Your task to perform on an android device: Go to accessibility settings Image 0: 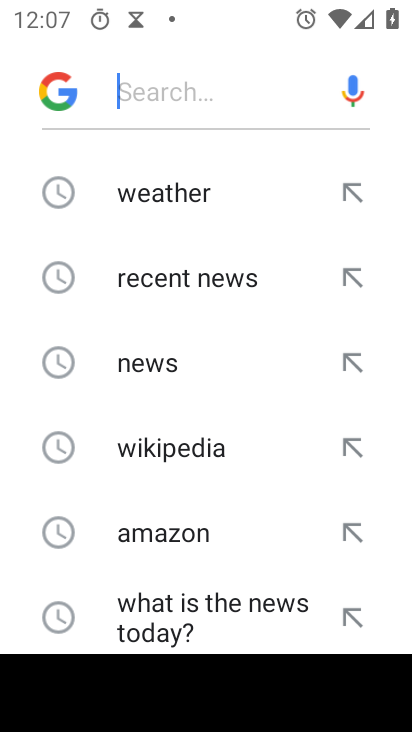
Step 0: press home button
Your task to perform on an android device: Go to accessibility settings Image 1: 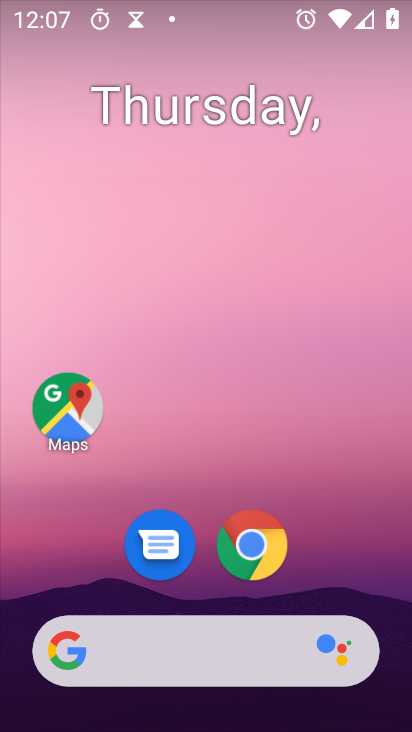
Step 1: drag from (210, 657) to (336, 154)
Your task to perform on an android device: Go to accessibility settings Image 2: 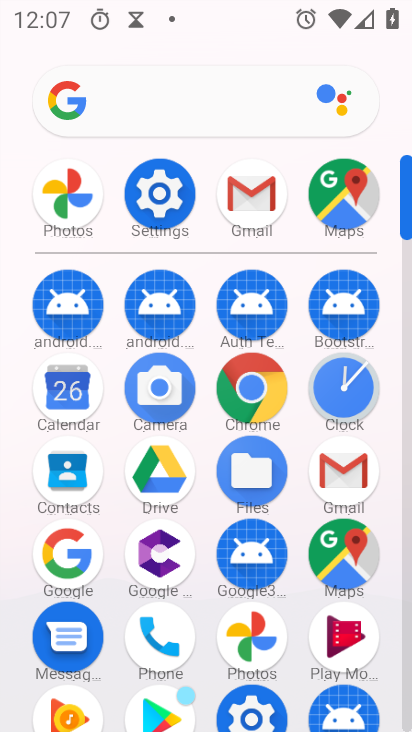
Step 2: click (171, 202)
Your task to perform on an android device: Go to accessibility settings Image 3: 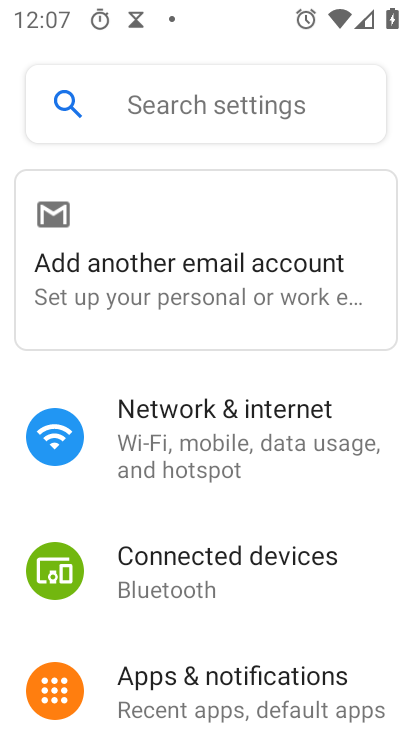
Step 3: drag from (255, 648) to (367, 305)
Your task to perform on an android device: Go to accessibility settings Image 4: 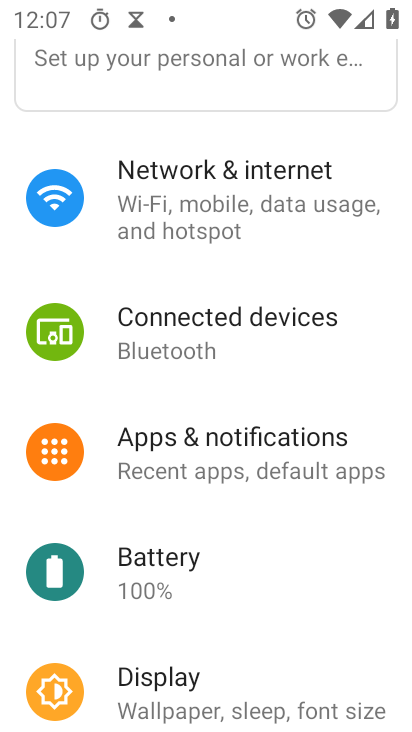
Step 4: drag from (248, 621) to (363, 23)
Your task to perform on an android device: Go to accessibility settings Image 5: 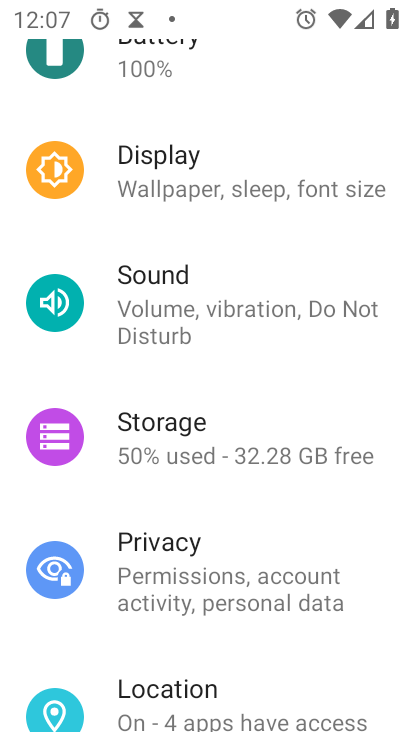
Step 5: drag from (197, 656) to (337, 180)
Your task to perform on an android device: Go to accessibility settings Image 6: 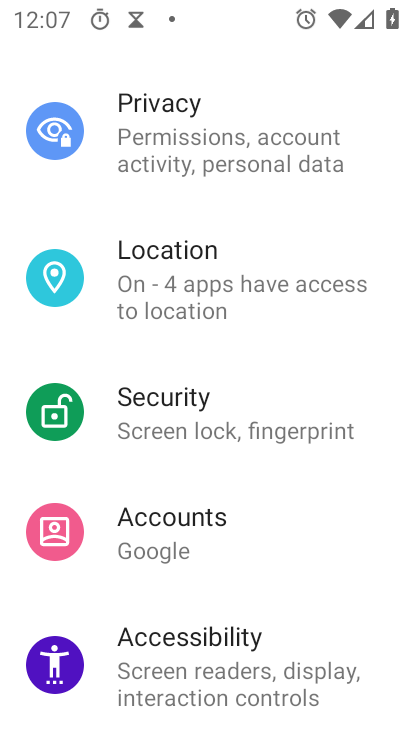
Step 6: click (221, 648)
Your task to perform on an android device: Go to accessibility settings Image 7: 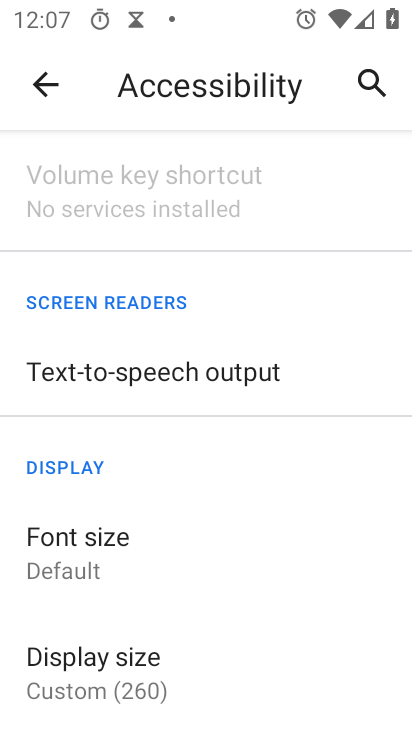
Step 7: task complete